Your task to perform on an android device: all mails in gmail Image 0: 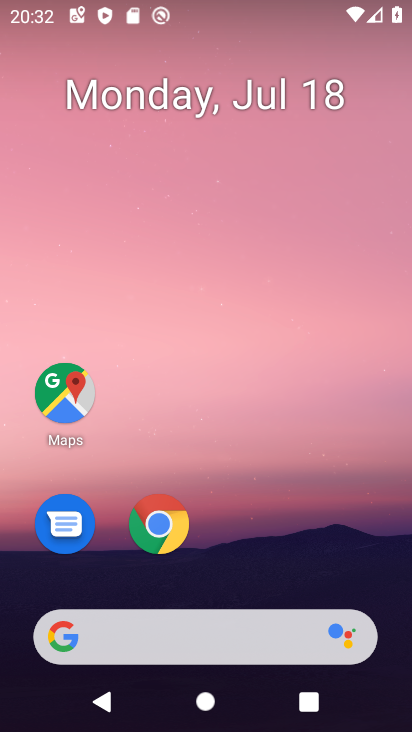
Step 0: drag from (266, 567) to (304, 54)
Your task to perform on an android device: all mails in gmail Image 1: 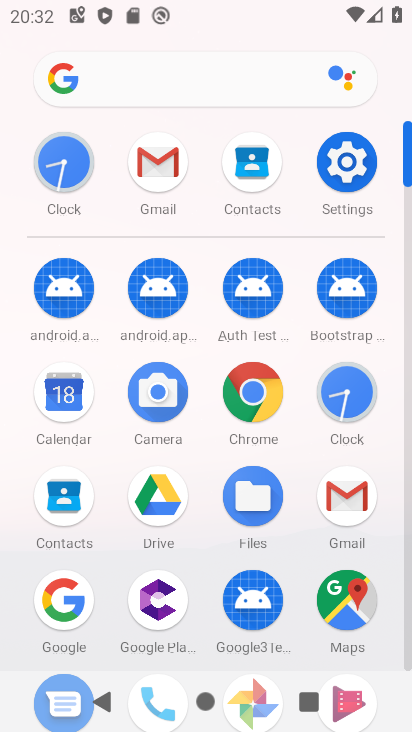
Step 1: click (158, 165)
Your task to perform on an android device: all mails in gmail Image 2: 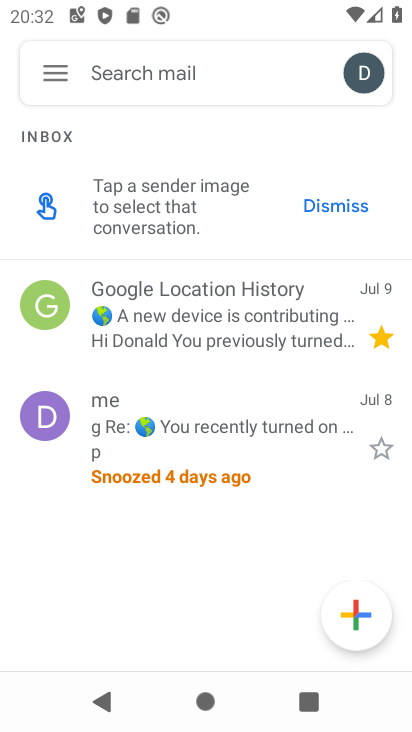
Step 2: click (55, 71)
Your task to perform on an android device: all mails in gmail Image 3: 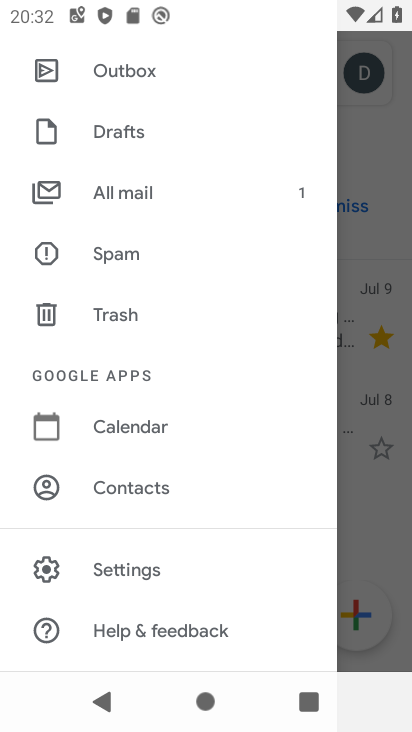
Step 3: click (134, 179)
Your task to perform on an android device: all mails in gmail Image 4: 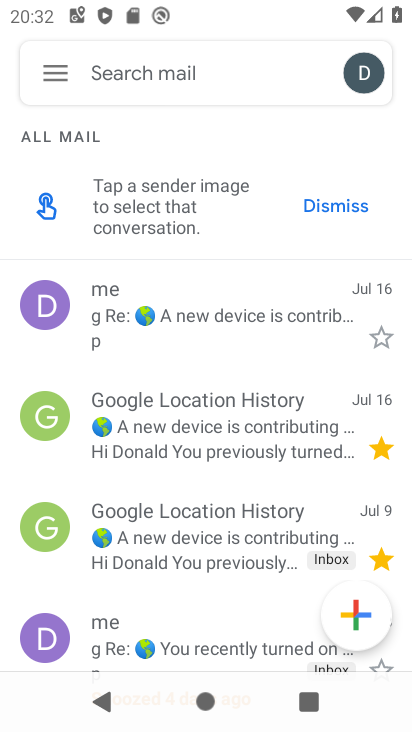
Step 4: task complete